Your task to perform on an android device: add a label to a message in the gmail app Image 0: 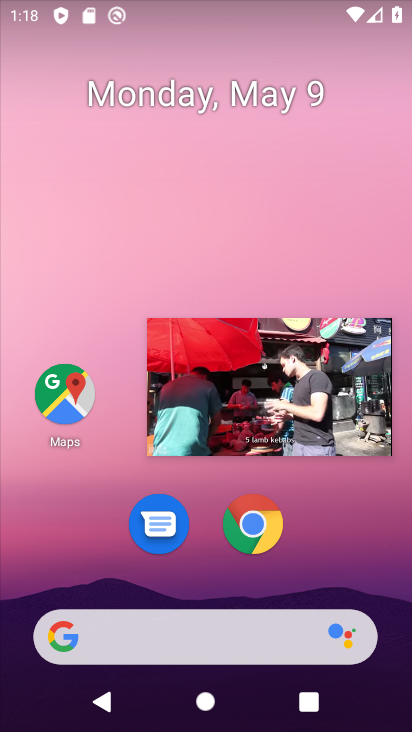
Step 0: drag from (67, 495) to (103, 59)
Your task to perform on an android device: add a label to a message in the gmail app Image 1: 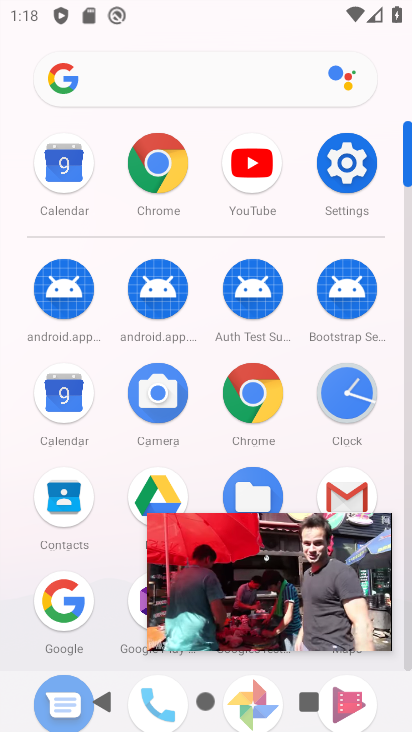
Step 1: click (351, 482)
Your task to perform on an android device: add a label to a message in the gmail app Image 2: 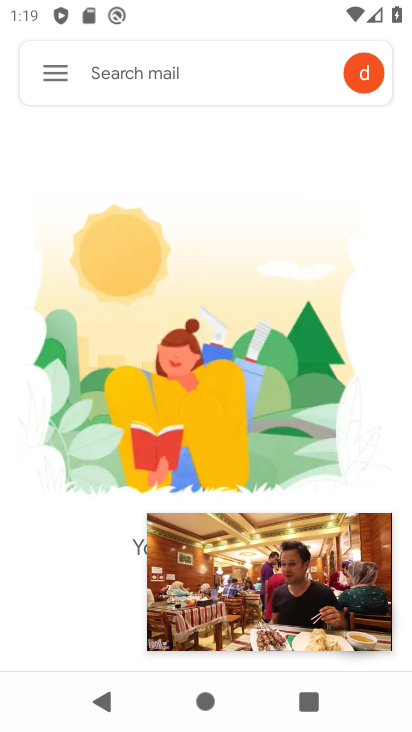
Step 2: drag from (248, 570) to (405, 468)
Your task to perform on an android device: add a label to a message in the gmail app Image 3: 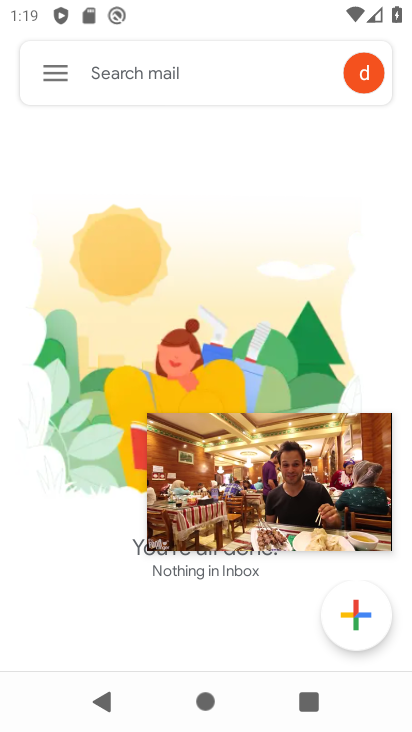
Step 3: drag from (235, 514) to (138, 6)
Your task to perform on an android device: add a label to a message in the gmail app Image 4: 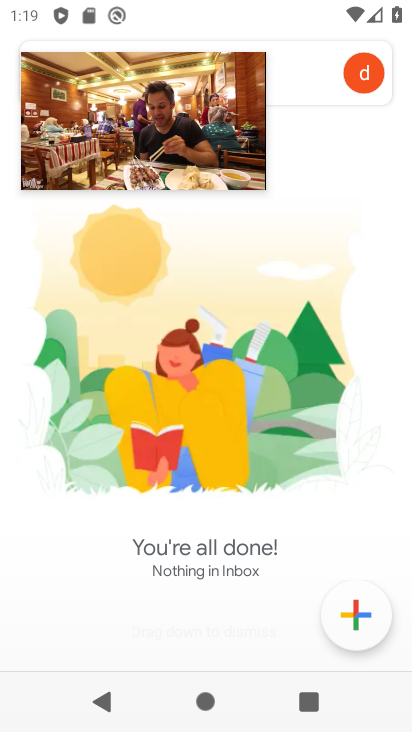
Step 4: drag from (160, 108) to (276, 613)
Your task to perform on an android device: add a label to a message in the gmail app Image 5: 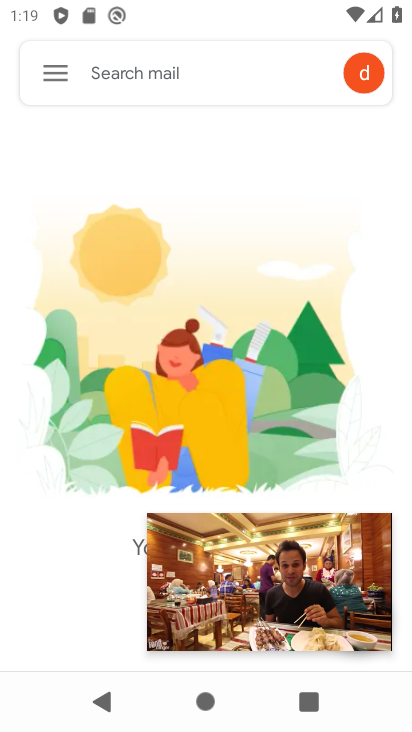
Step 5: drag from (238, 554) to (169, 729)
Your task to perform on an android device: add a label to a message in the gmail app Image 6: 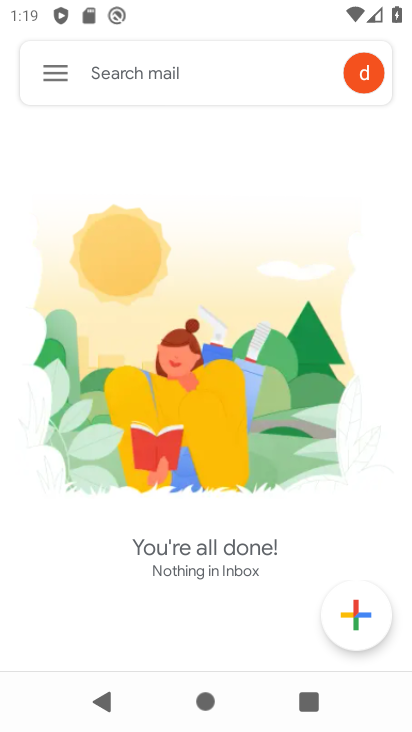
Step 6: click (52, 56)
Your task to perform on an android device: add a label to a message in the gmail app Image 7: 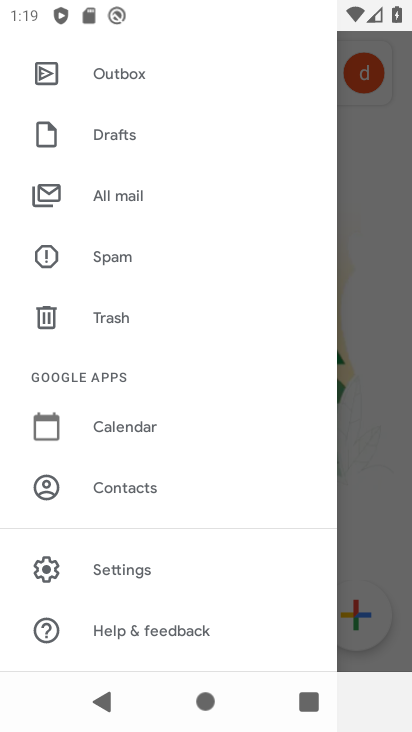
Step 7: click (107, 191)
Your task to perform on an android device: add a label to a message in the gmail app Image 8: 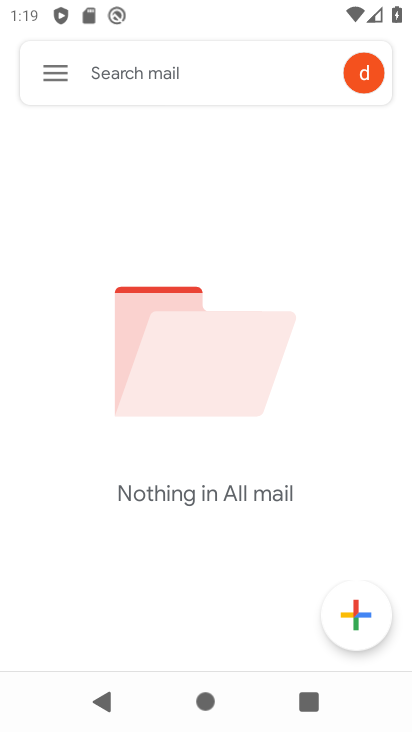
Step 8: task complete